Your task to perform on an android device: Open eBay Image 0: 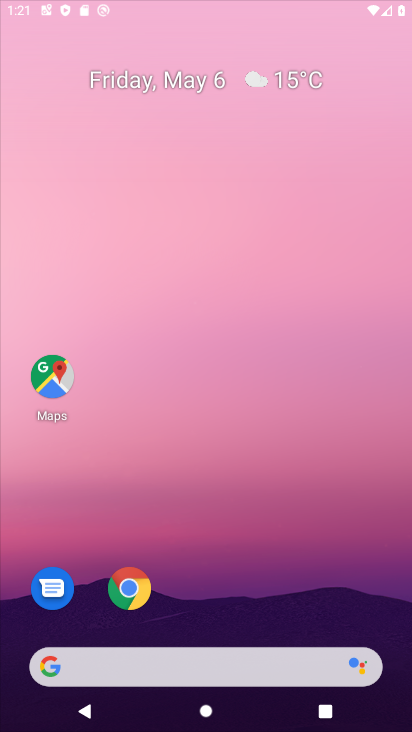
Step 0: drag from (242, 112) to (197, 119)
Your task to perform on an android device: Open eBay Image 1: 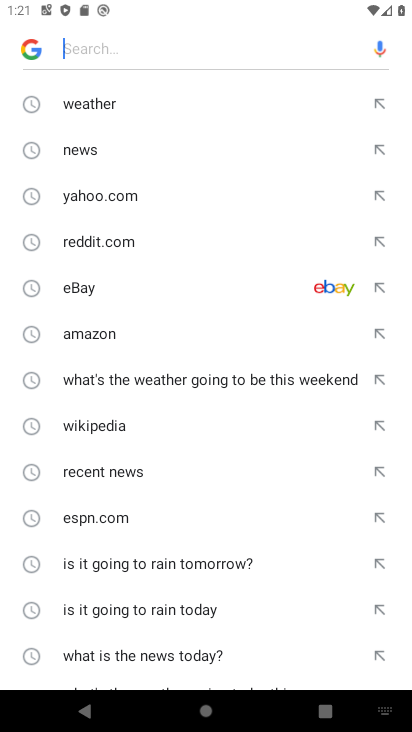
Step 1: press home button
Your task to perform on an android device: Open eBay Image 2: 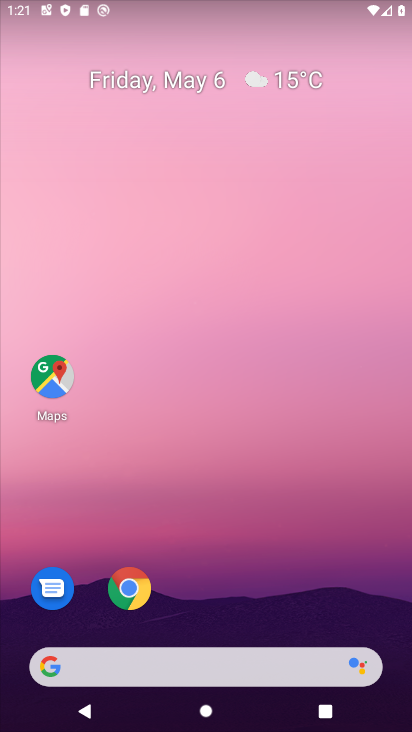
Step 2: click (210, 658)
Your task to perform on an android device: Open eBay Image 3: 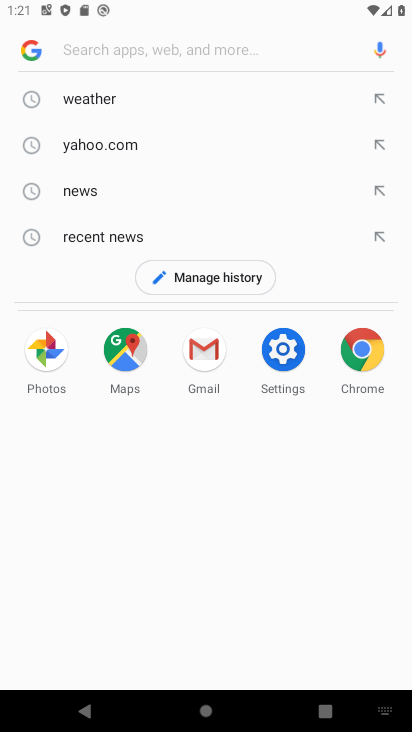
Step 3: type "ebay"
Your task to perform on an android device: Open eBay Image 4: 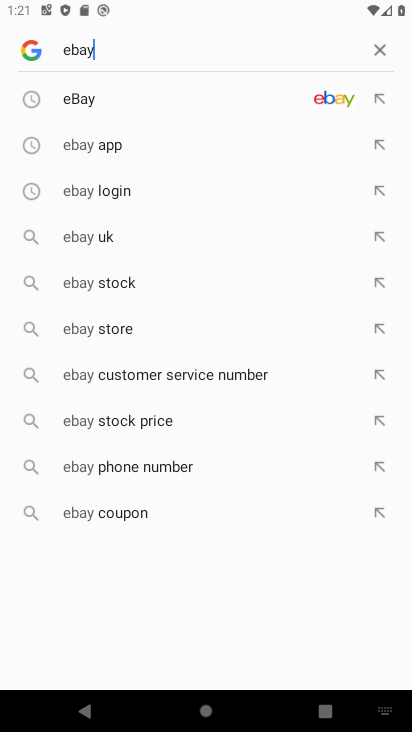
Step 4: click (180, 81)
Your task to perform on an android device: Open eBay Image 5: 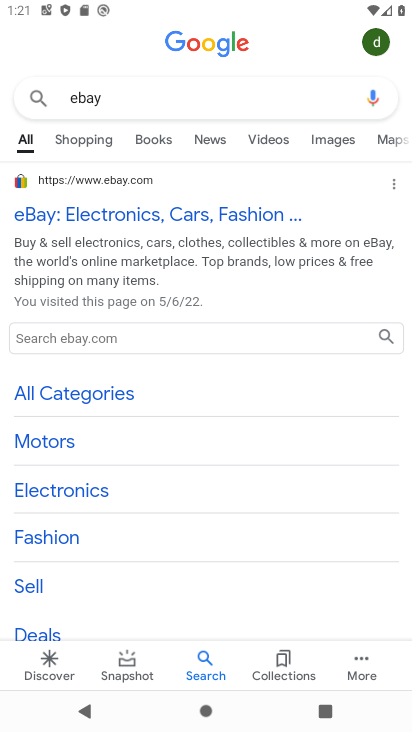
Step 5: click (83, 200)
Your task to perform on an android device: Open eBay Image 6: 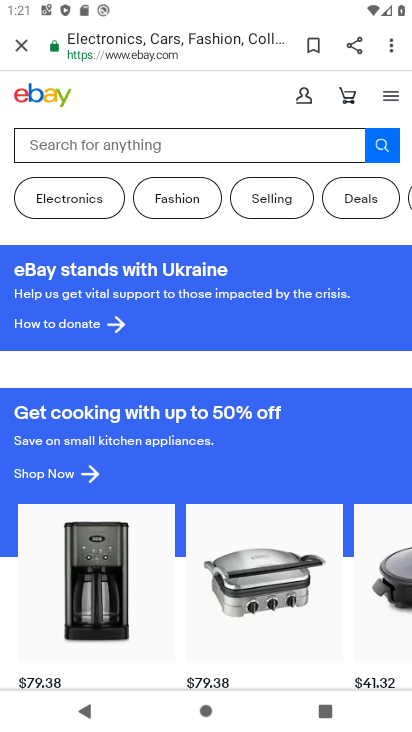
Step 6: task complete